Your task to perform on an android device: show emergency info Image 0: 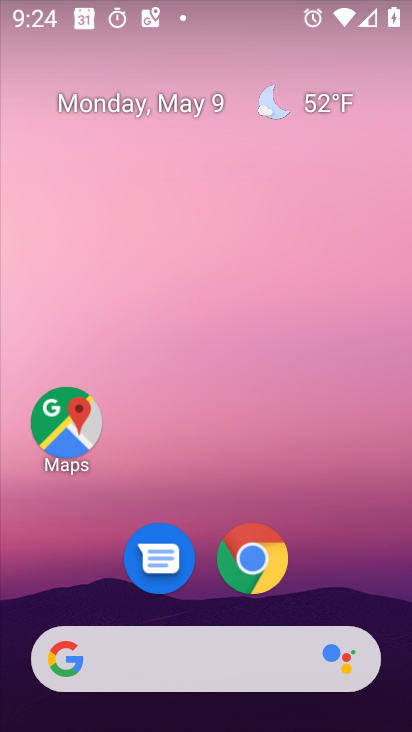
Step 0: drag from (208, 594) to (247, 79)
Your task to perform on an android device: show emergency info Image 1: 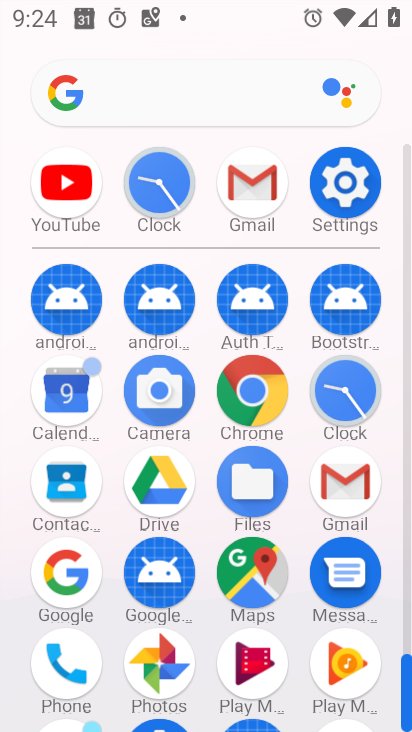
Step 1: click (356, 177)
Your task to perform on an android device: show emergency info Image 2: 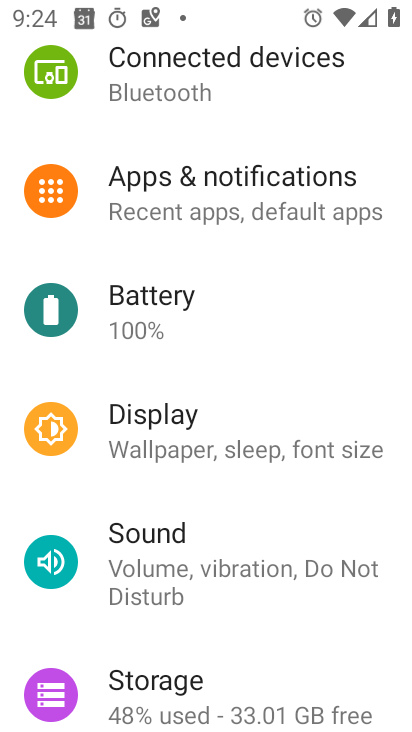
Step 2: drag from (199, 683) to (292, 14)
Your task to perform on an android device: show emergency info Image 3: 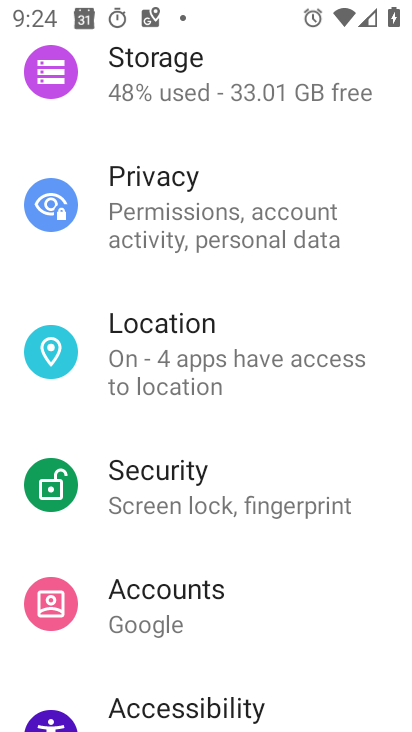
Step 3: drag from (239, 640) to (267, 83)
Your task to perform on an android device: show emergency info Image 4: 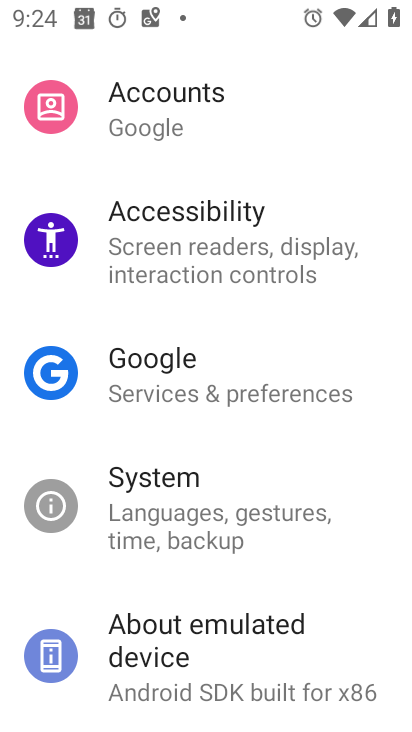
Step 4: drag from (184, 642) to (302, 31)
Your task to perform on an android device: show emergency info Image 5: 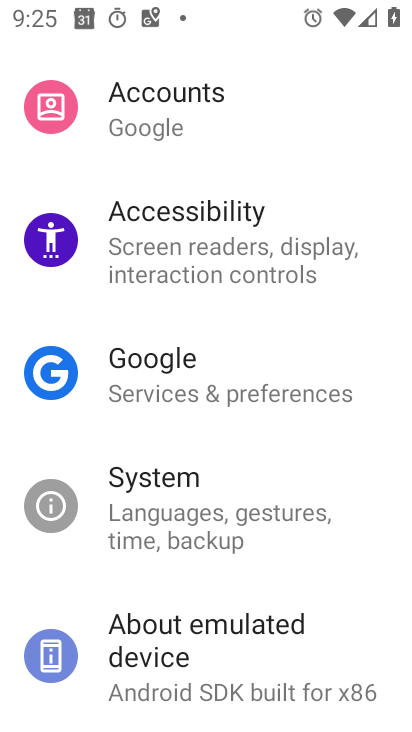
Step 5: click (185, 655)
Your task to perform on an android device: show emergency info Image 6: 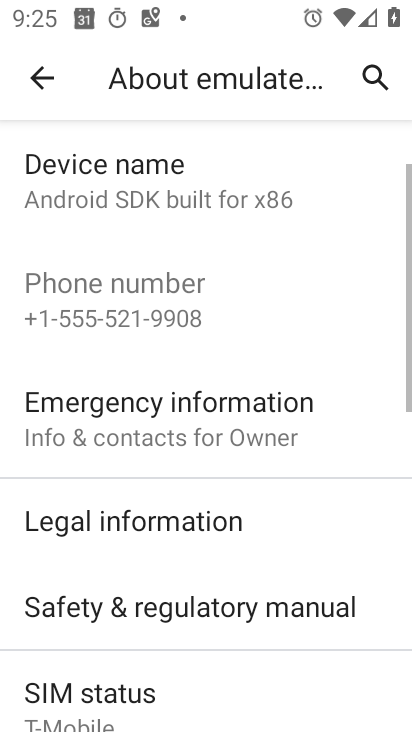
Step 6: click (154, 410)
Your task to perform on an android device: show emergency info Image 7: 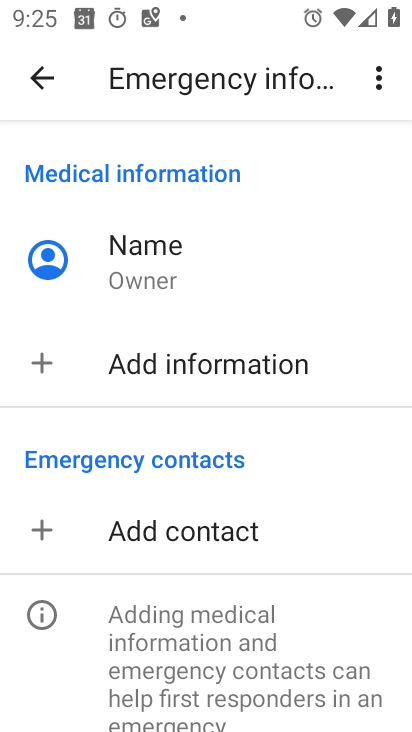
Step 7: task complete